Your task to perform on an android device: Open privacy settings Image 0: 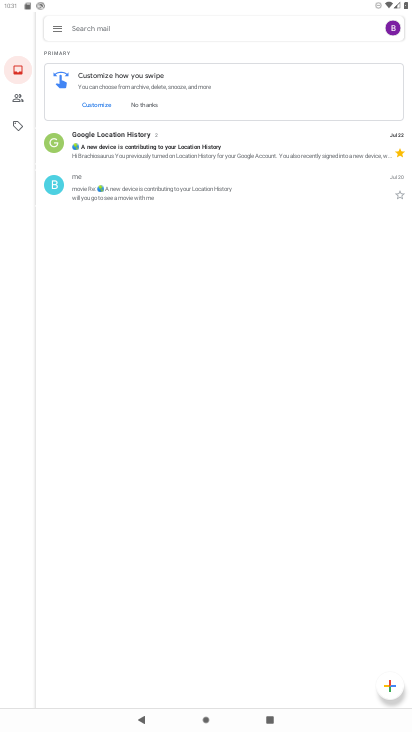
Step 0: press home button
Your task to perform on an android device: Open privacy settings Image 1: 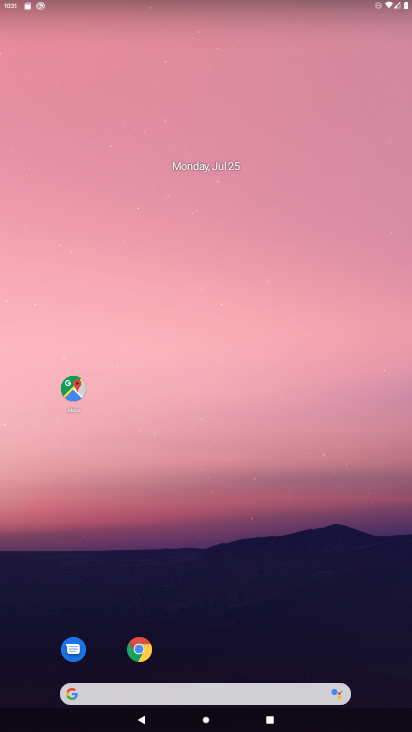
Step 1: drag from (385, 652) to (304, 153)
Your task to perform on an android device: Open privacy settings Image 2: 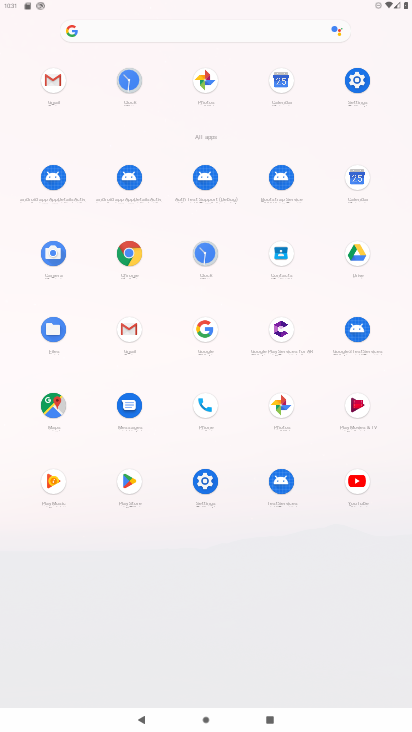
Step 2: click (206, 481)
Your task to perform on an android device: Open privacy settings Image 3: 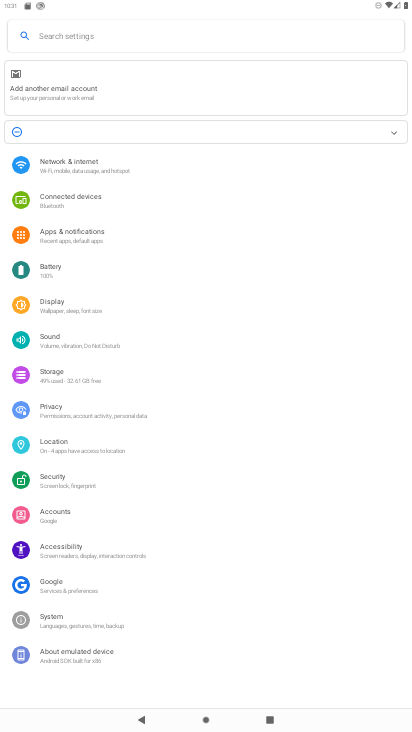
Step 3: click (49, 412)
Your task to perform on an android device: Open privacy settings Image 4: 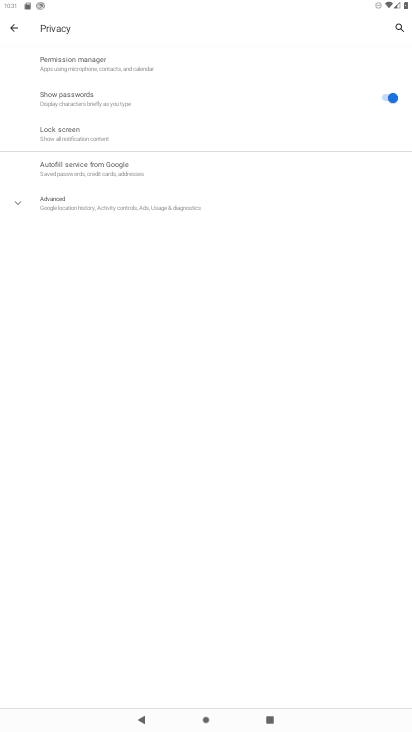
Step 4: click (16, 198)
Your task to perform on an android device: Open privacy settings Image 5: 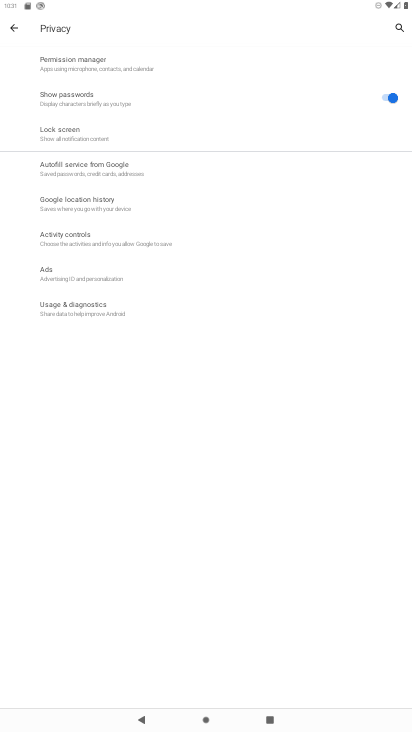
Step 5: task complete